Your task to perform on an android device: open sync settings in chrome Image 0: 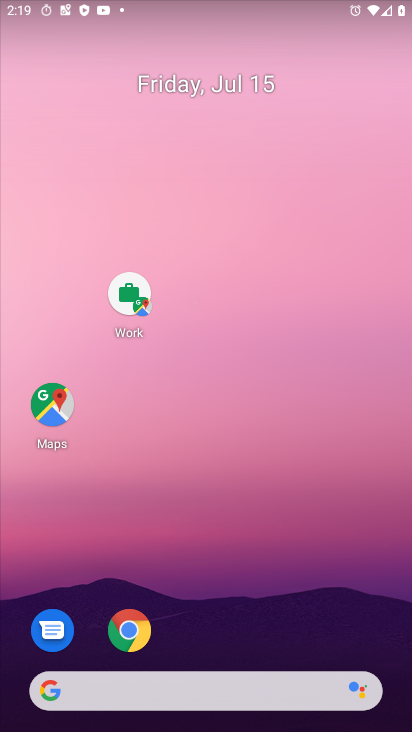
Step 0: click (136, 625)
Your task to perform on an android device: open sync settings in chrome Image 1: 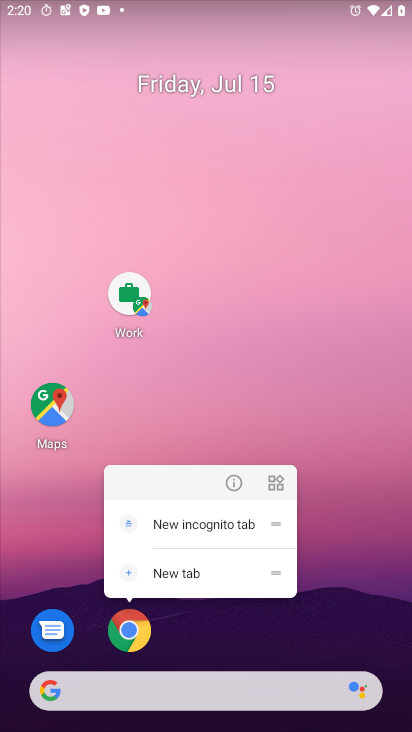
Step 1: click (128, 644)
Your task to perform on an android device: open sync settings in chrome Image 2: 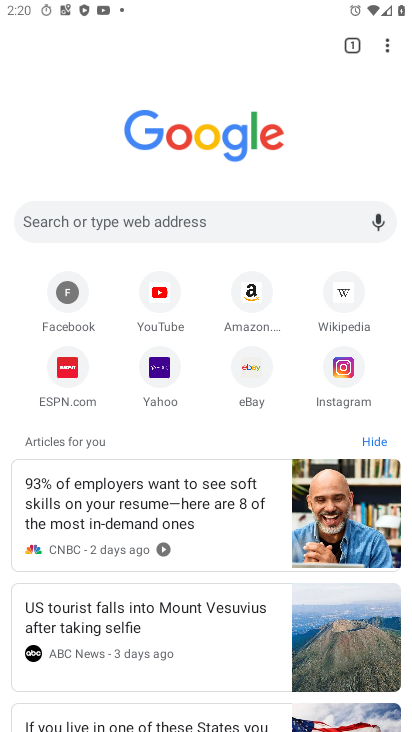
Step 2: click (388, 39)
Your task to perform on an android device: open sync settings in chrome Image 3: 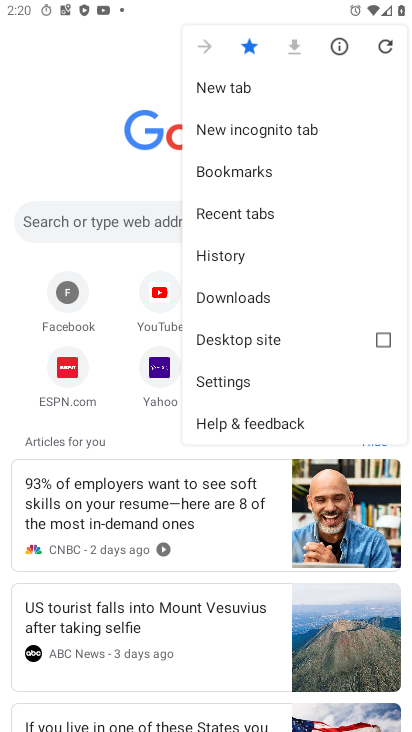
Step 3: click (244, 388)
Your task to perform on an android device: open sync settings in chrome Image 4: 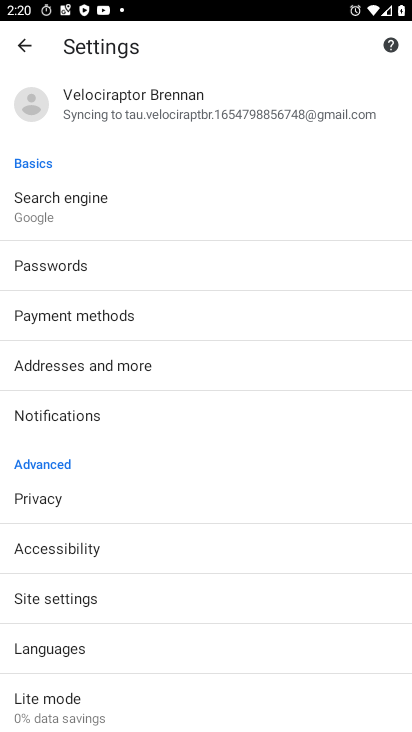
Step 4: click (150, 112)
Your task to perform on an android device: open sync settings in chrome Image 5: 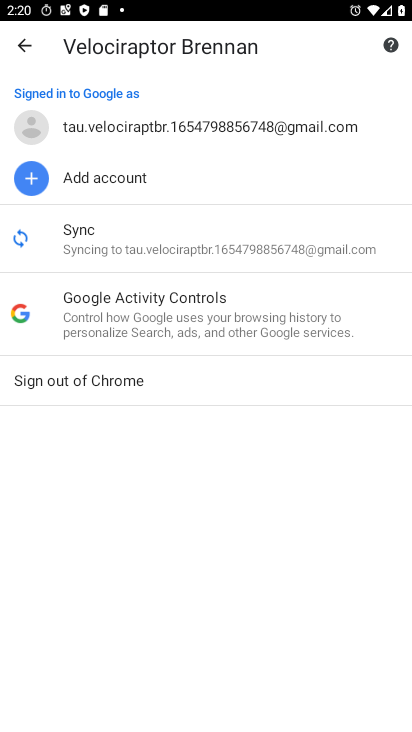
Step 5: click (111, 256)
Your task to perform on an android device: open sync settings in chrome Image 6: 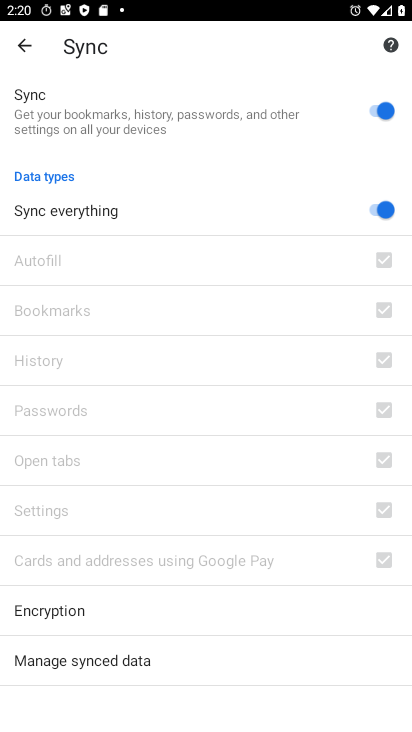
Step 6: task complete